Your task to perform on an android device: turn on data saver in the chrome app Image 0: 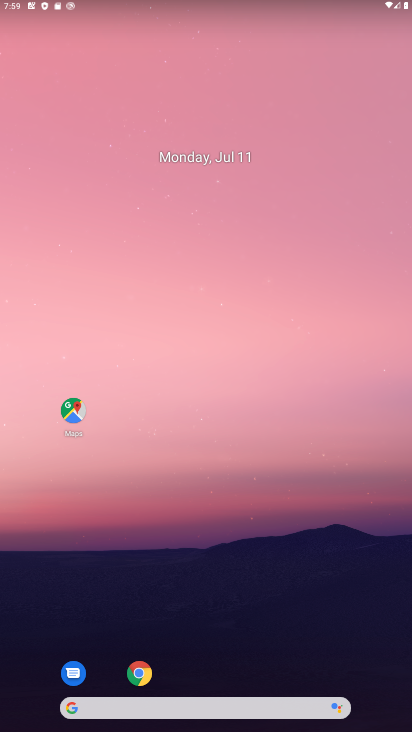
Step 0: click (138, 671)
Your task to perform on an android device: turn on data saver in the chrome app Image 1: 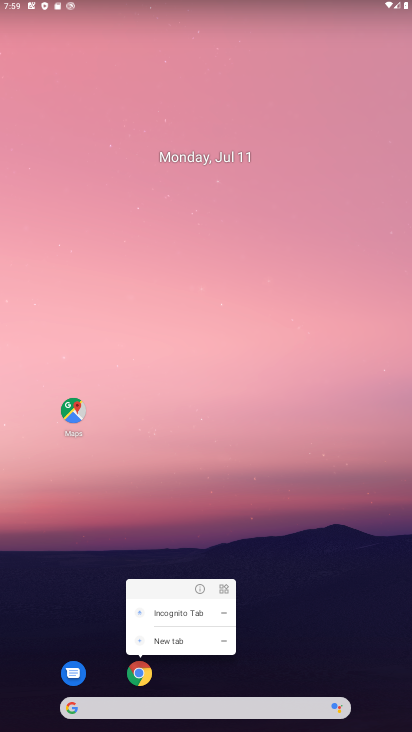
Step 1: click (138, 671)
Your task to perform on an android device: turn on data saver in the chrome app Image 2: 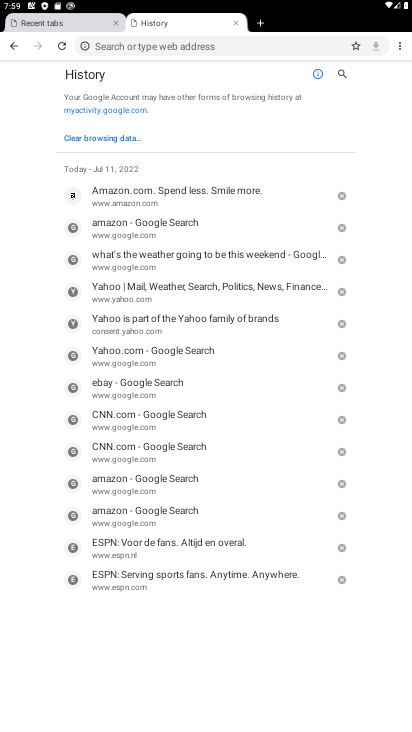
Step 2: click (399, 41)
Your task to perform on an android device: turn on data saver in the chrome app Image 3: 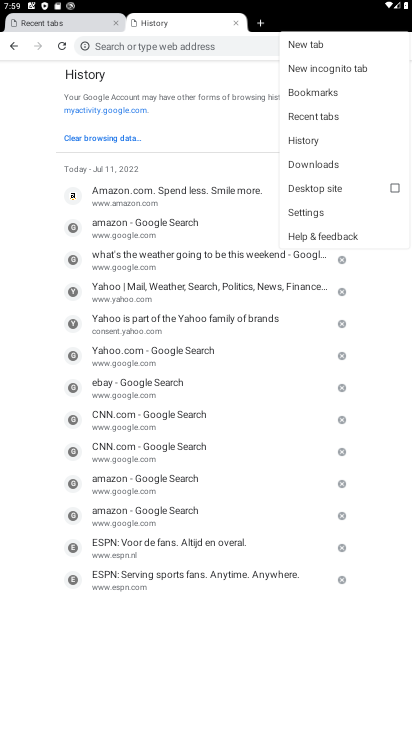
Step 3: click (311, 207)
Your task to perform on an android device: turn on data saver in the chrome app Image 4: 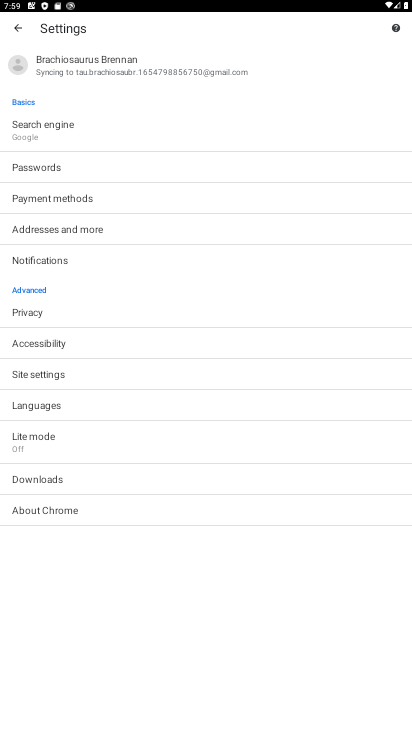
Step 4: click (62, 443)
Your task to perform on an android device: turn on data saver in the chrome app Image 5: 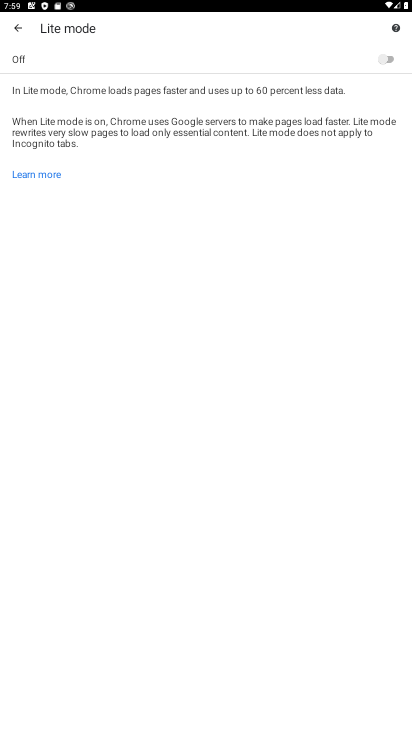
Step 5: click (386, 60)
Your task to perform on an android device: turn on data saver in the chrome app Image 6: 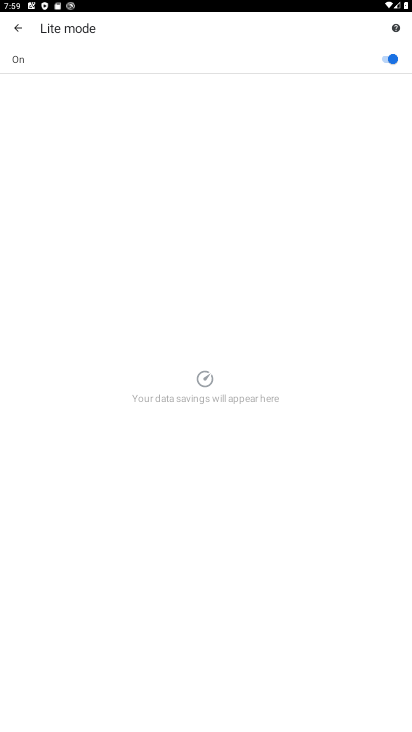
Step 6: task complete